Your task to perform on an android device: change notification settings in the gmail app Image 0: 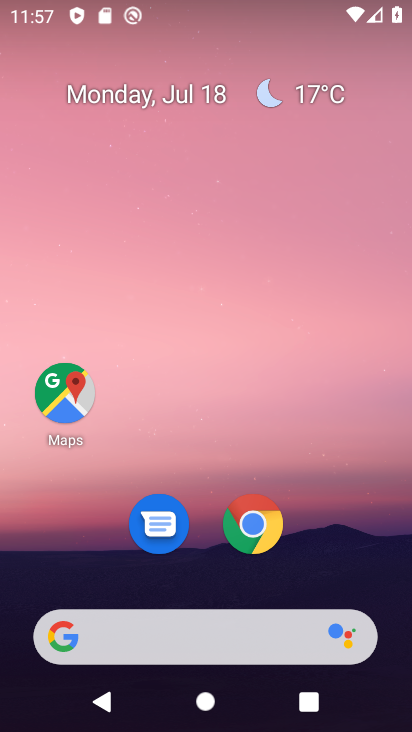
Step 0: drag from (223, 591) to (179, 100)
Your task to perform on an android device: change notification settings in the gmail app Image 1: 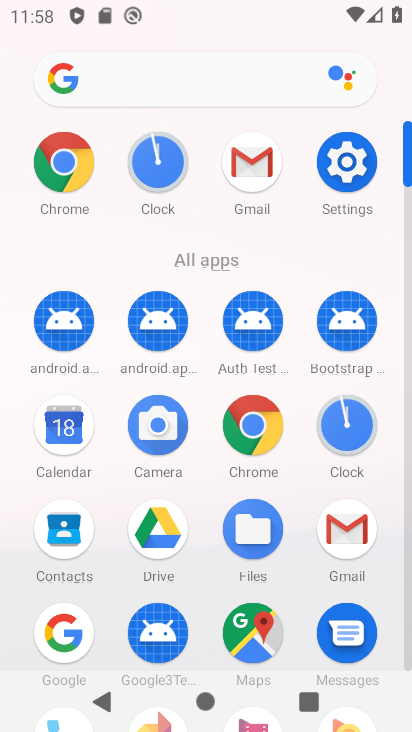
Step 1: click (347, 538)
Your task to perform on an android device: change notification settings in the gmail app Image 2: 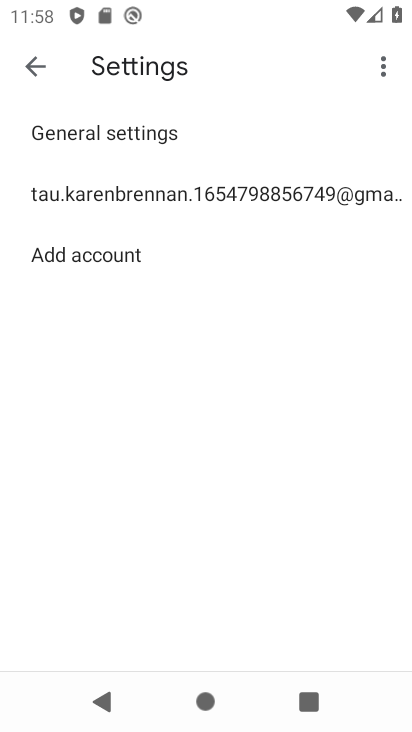
Step 2: click (104, 131)
Your task to perform on an android device: change notification settings in the gmail app Image 3: 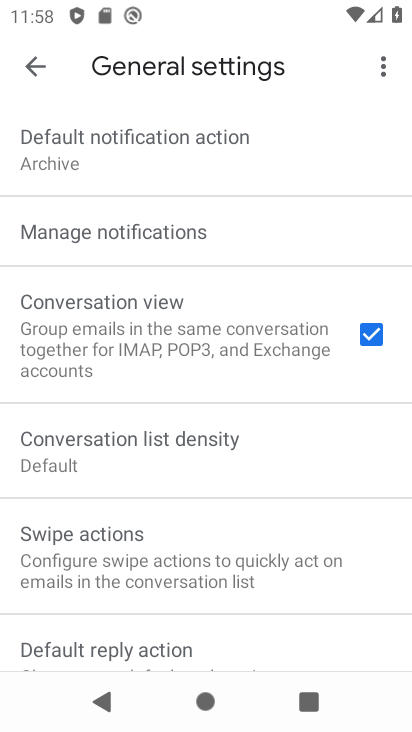
Step 3: click (108, 232)
Your task to perform on an android device: change notification settings in the gmail app Image 4: 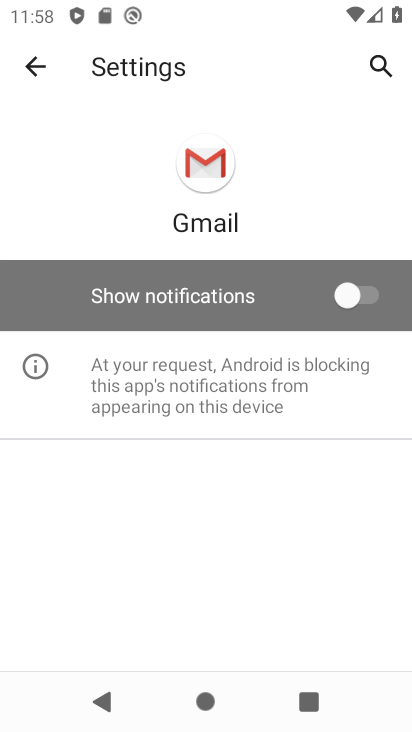
Step 4: click (343, 300)
Your task to perform on an android device: change notification settings in the gmail app Image 5: 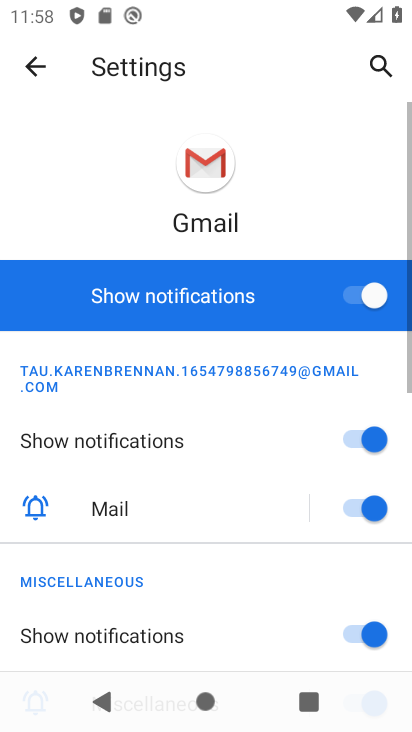
Step 5: task complete